Your task to perform on an android device: change text size in settings app Image 0: 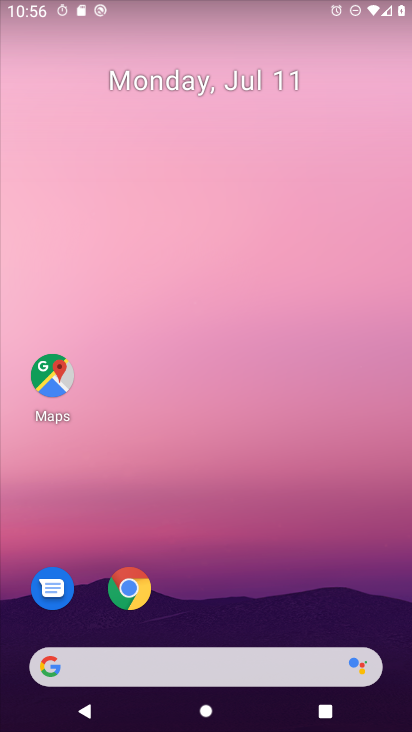
Step 0: drag from (266, 590) to (321, 6)
Your task to perform on an android device: change text size in settings app Image 1: 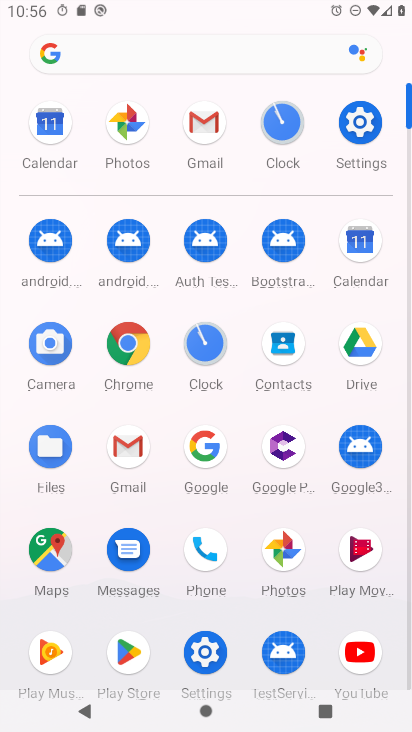
Step 1: click (354, 117)
Your task to perform on an android device: change text size in settings app Image 2: 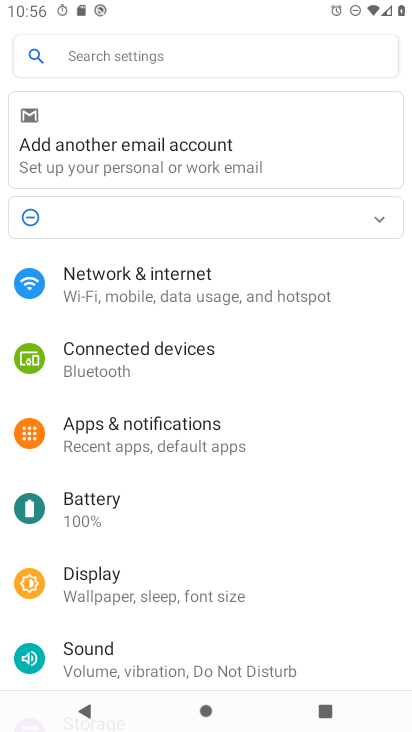
Step 2: click (136, 56)
Your task to perform on an android device: change text size in settings app Image 3: 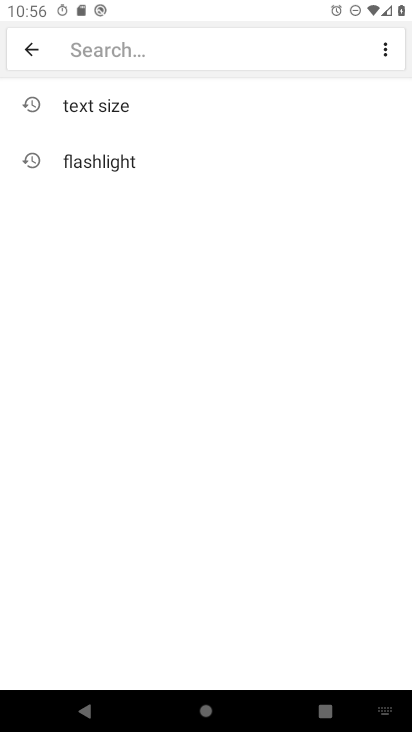
Step 3: click (115, 107)
Your task to perform on an android device: change text size in settings app Image 4: 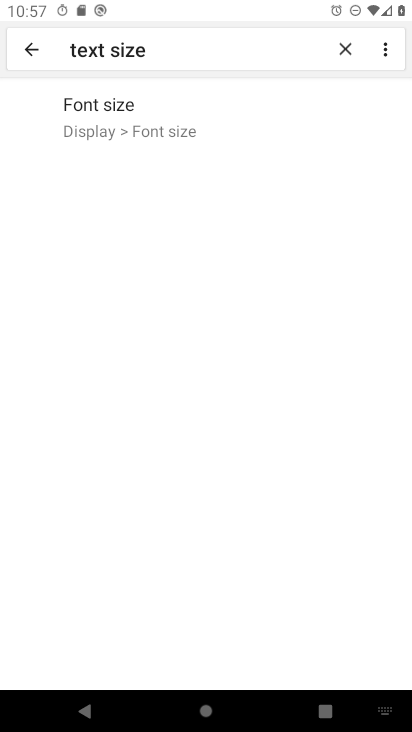
Step 4: click (139, 110)
Your task to perform on an android device: change text size in settings app Image 5: 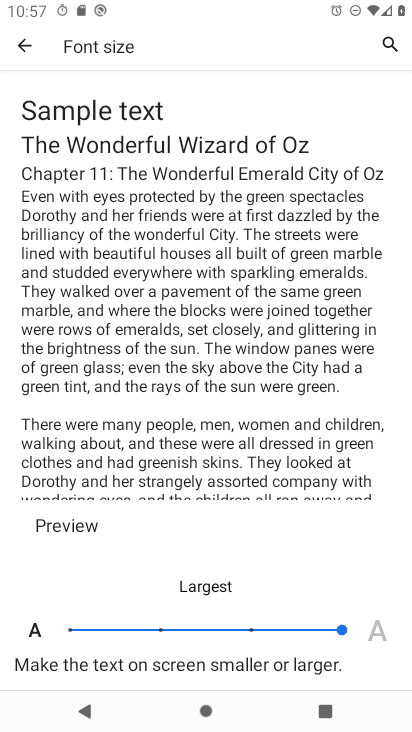
Step 5: click (255, 624)
Your task to perform on an android device: change text size in settings app Image 6: 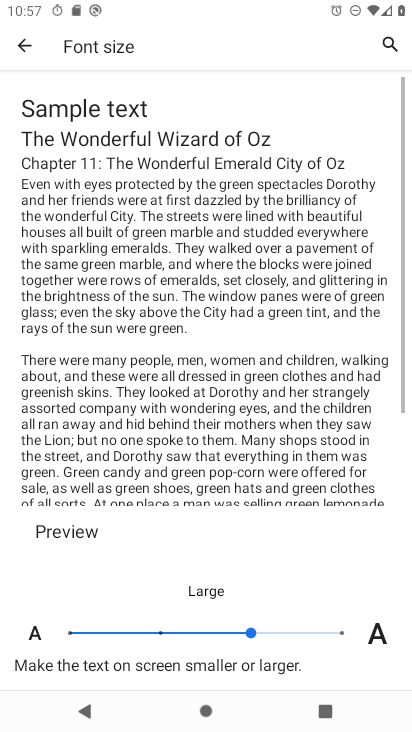
Step 6: task complete